Your task to perform on an android device: What is the news today? Image 0: 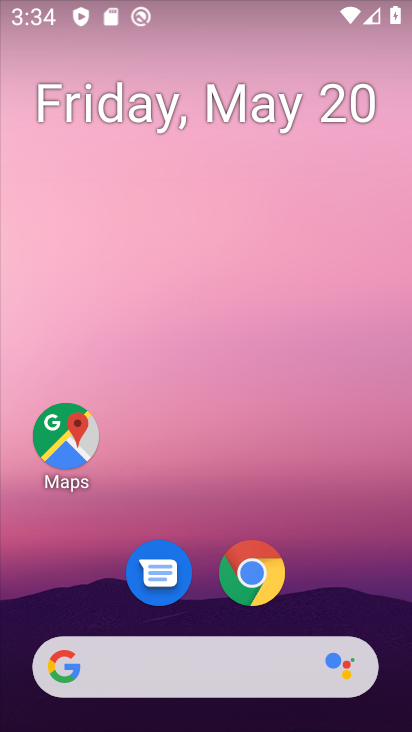
Step 0: drag from (7, 271) to (385, 317)
Your task to perform on an android device: What is the news today? Image 1: 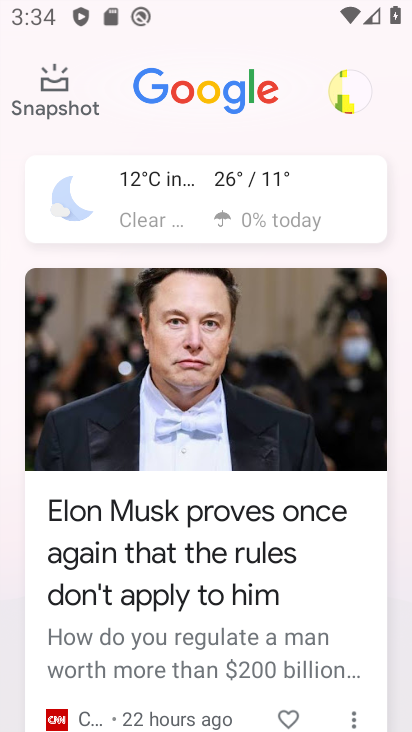
Step 1: task complete